Your task to perform on an android device: change timer sound Image 0: 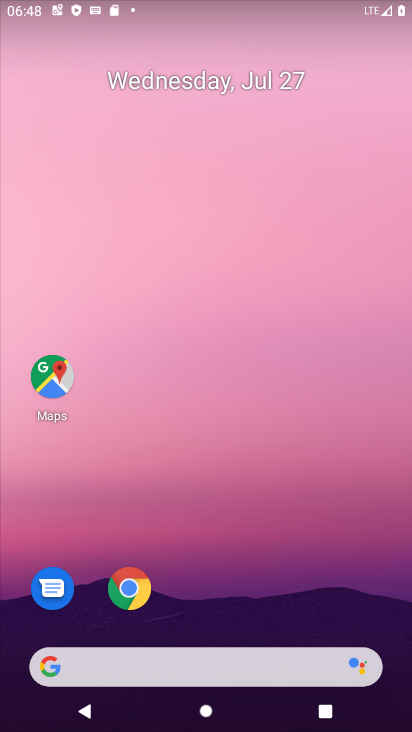
Step 0: drag from (307, 658) to (331, 6)
Your task to perform on an android device: change timer sound Image 1: 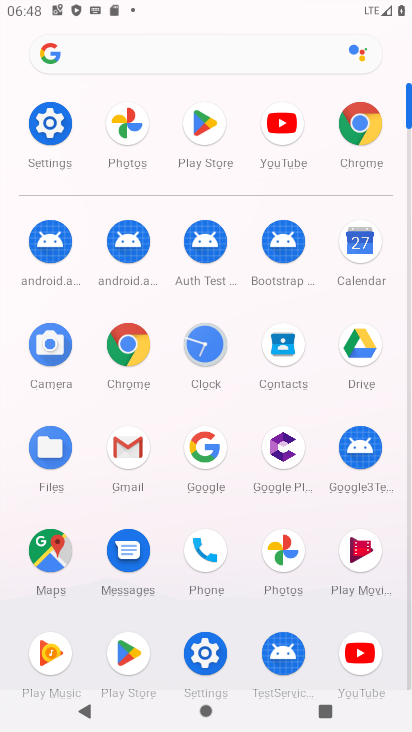
Step 1: click (37, 109)
Your task to perform on an android device: change timer sound Image 2: 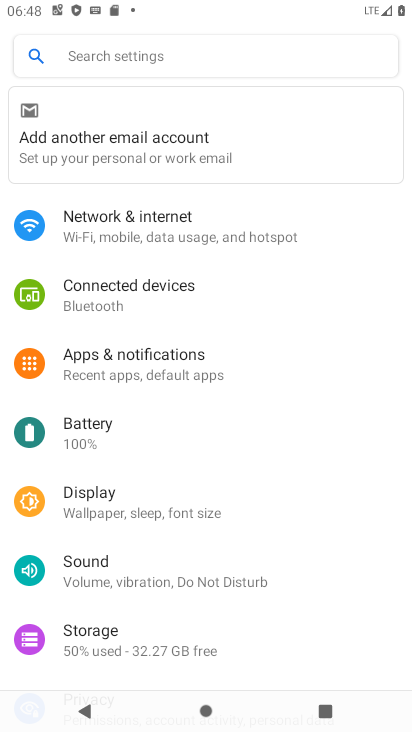
Step 2: press home button
Your task to perform on an android device: change timer sound Image 3: 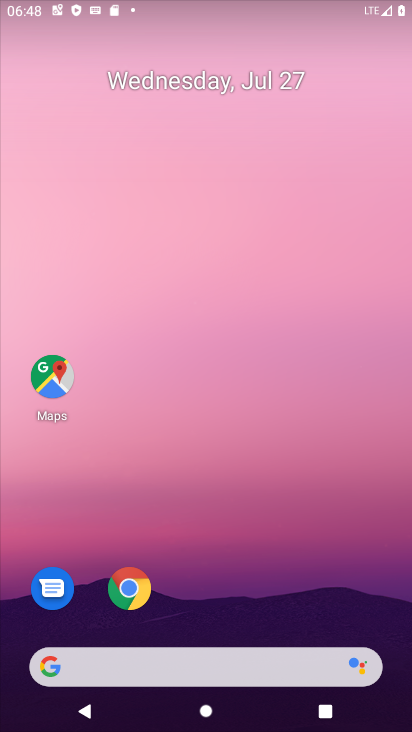
Step 3: drag from (228, 667) to (341, 47)
Your task to perform on an android device: change timer sound Image 4: 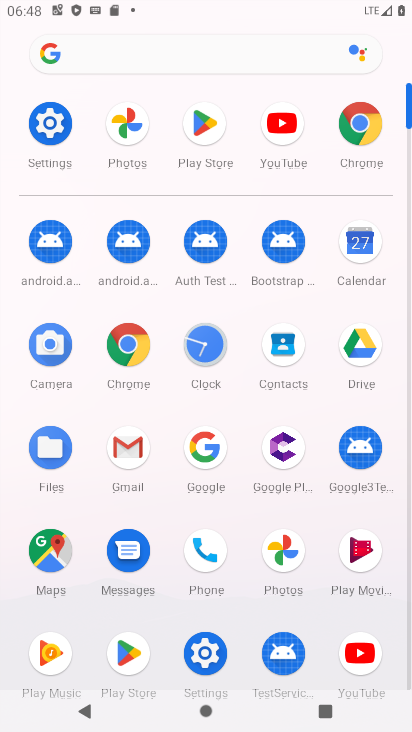
Step 4: click (203, 345)
Your task to perform on an android device: change timer sound Image 5: 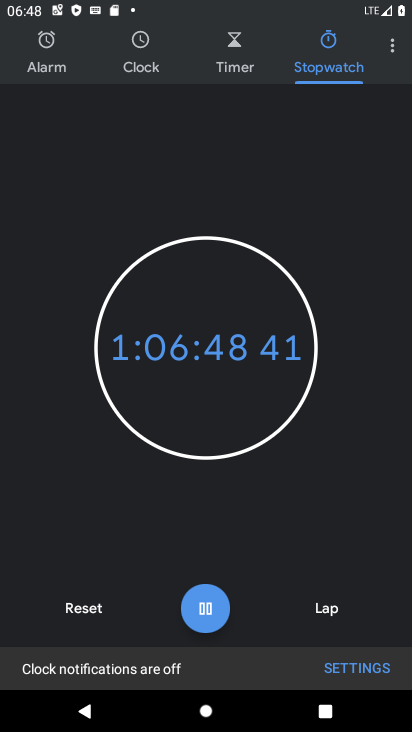
Step 5: click (390, 37)
Your task to perform on an android device: change timer sound Image 6: 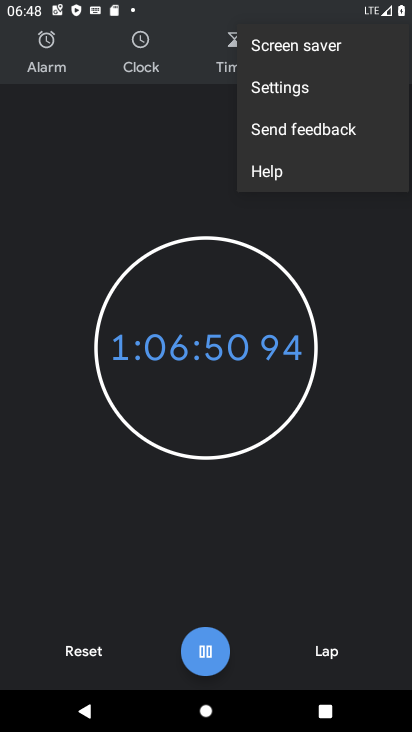
Step 6: click (278, 90)
Your task to perform on an android device: change timer sound Image 7: 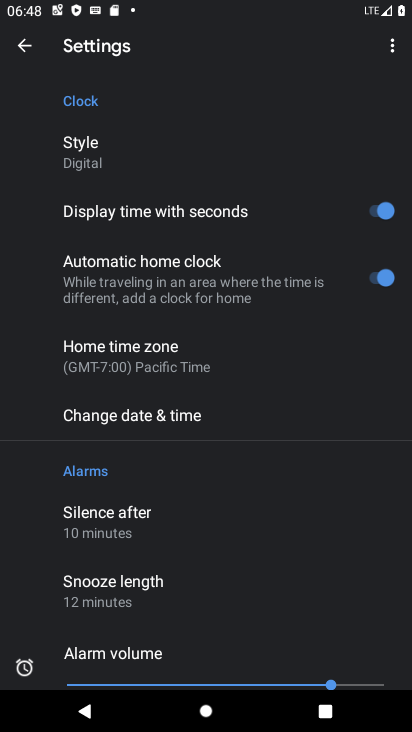
Step 7: drag from (159, 636) to (249, 160)
Your task to perform on an android device: change timer sound Image 8: 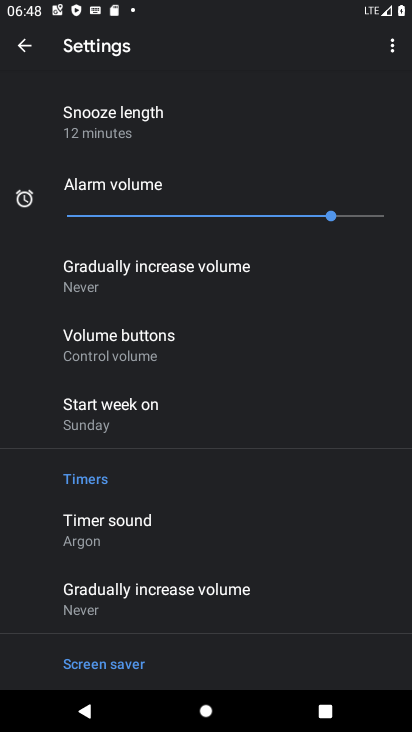
Step 8: click (175, 538)
Your task to perform on an android device: change timer sound Image 9: 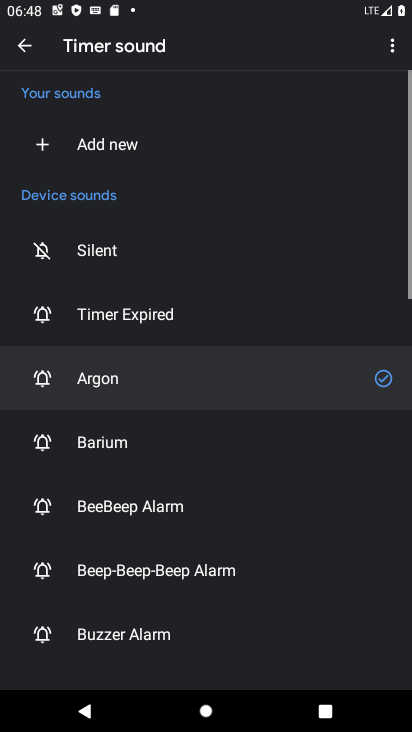
Step 9: click (128, 448)
Your task to perform on an android device: change timer sound Image 10: 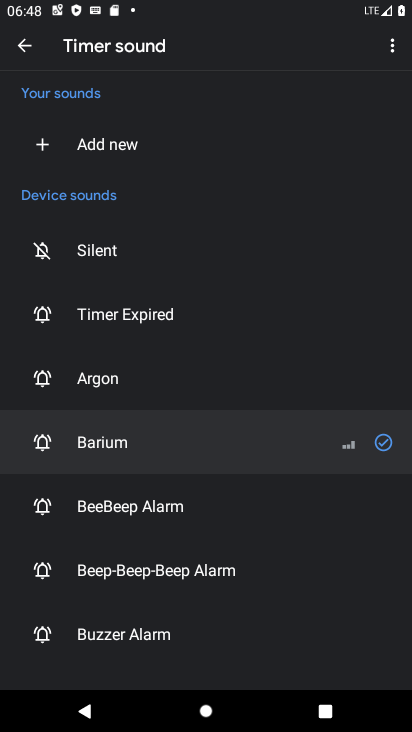
Step 10: task complete